Your task to perform on an android device: Go to Google Image 0: 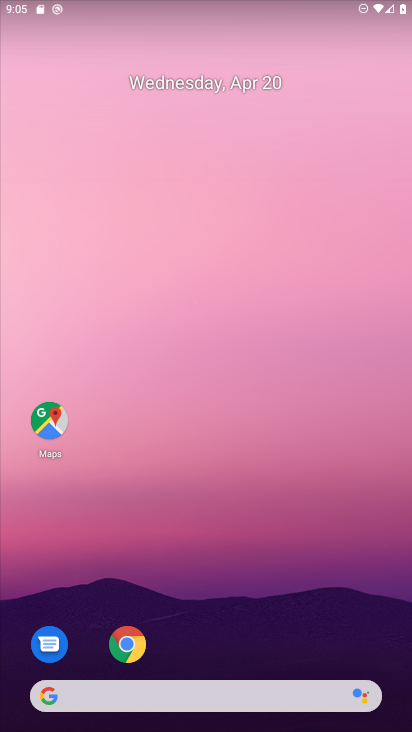
Step 0: drag from (302, 607) to (214, 65)
Your task to perform on an android device: Go to Google Image 1: 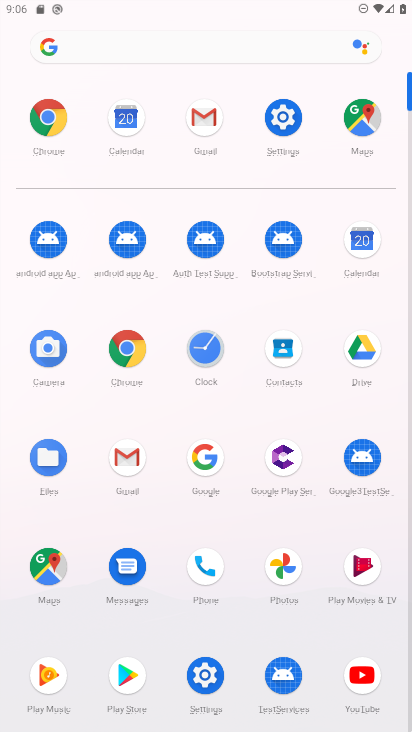
Step 1: click (212, 449)
Your task to perform on an android device: Go to Google Image 2: 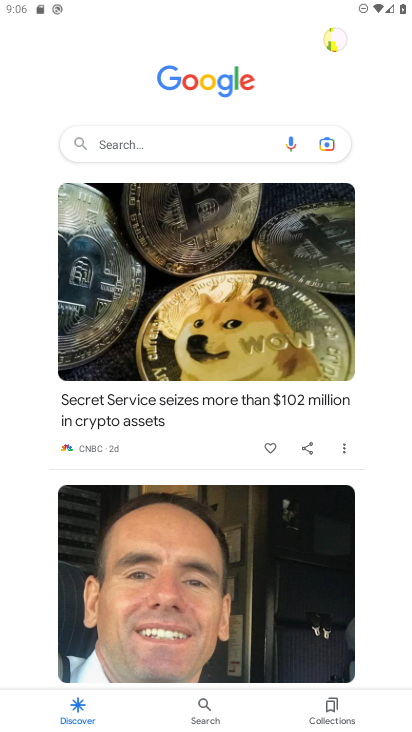
Step 2: task complete